Your task to perform on an android device: uninstall "Microsoft Excel" Image 0: 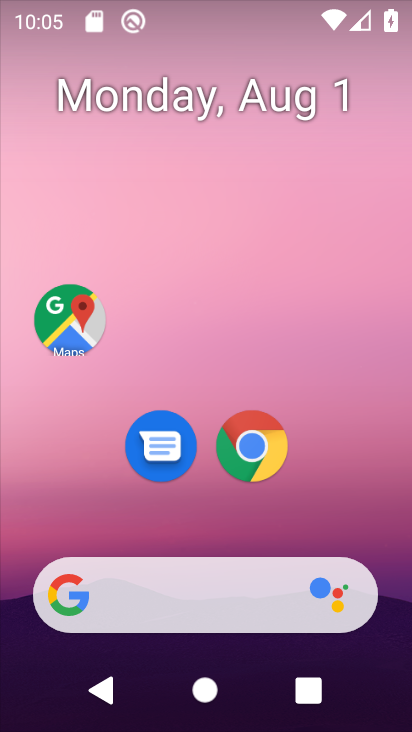
Step 0: drag from (207, 526) to (233, 102)
Your task to perform on an android device: uninstall "Microsoft Excel" Image 1: 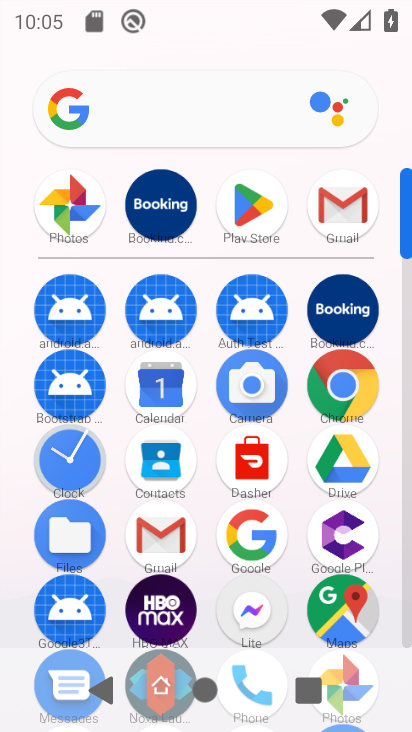
Step 1: click (245, 186)
Your task to perform on an android device: uninstall "Microsoft Excel" Image 2: 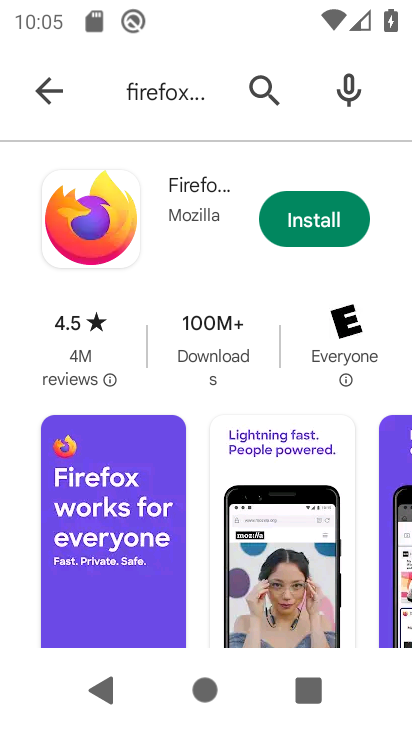
Step 2: click (266, 74)
Your task to perform on an android device: uninstall "Microsoft Excel" Image 3: 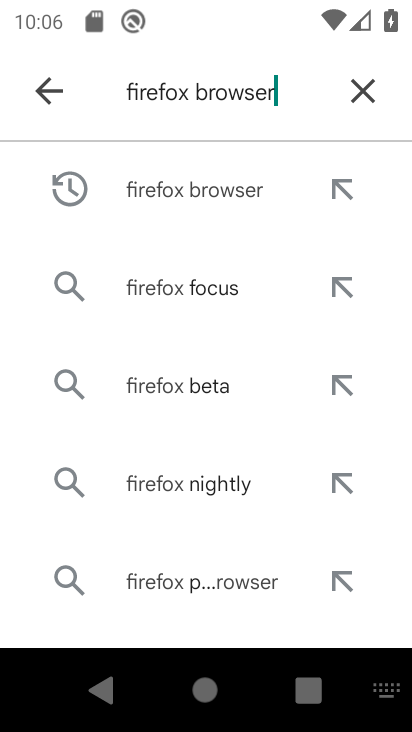
Step 3: click (354, 98)
Your task to perform on an android device: uninstall "Microsoft Excel" Image 4: 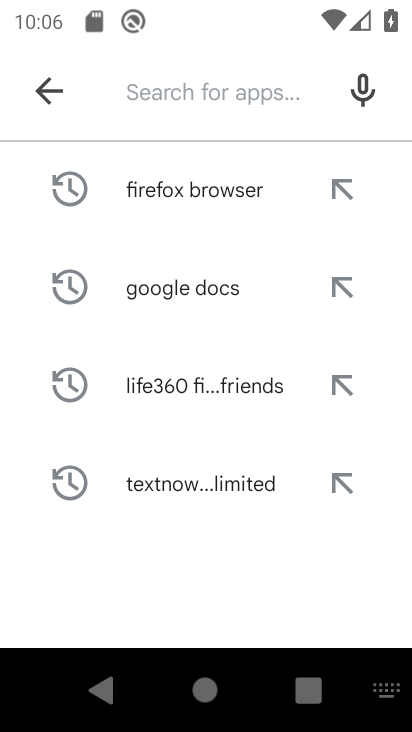
Step 4: type "Microsoft Excel"
Your task to perform on an android device: uninstall "Microsoft Excel" Image 5: 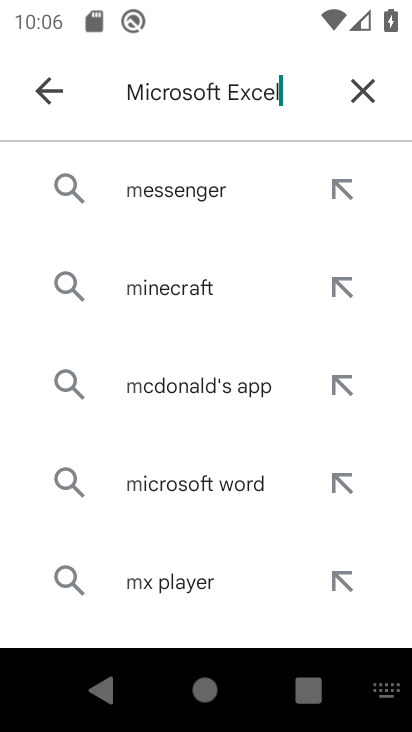
Step 5: type ""
Your task to perform on an android device: uninstall "Microsoft Excel" Image 6: 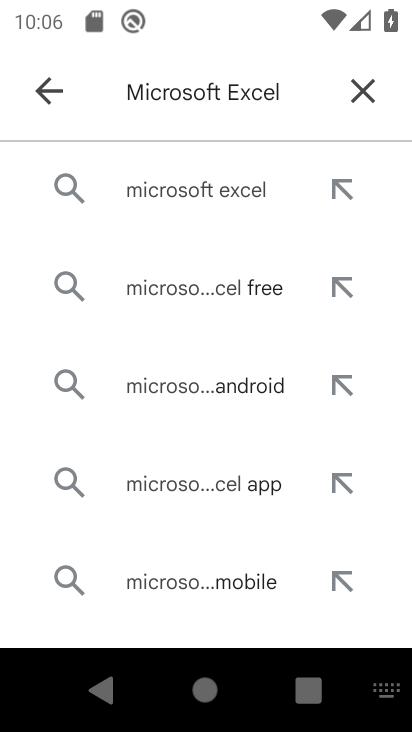
Step 6: click (154, 184)
Your task to perform on an android device: uninstall "Microsoft Excel" Image 7: 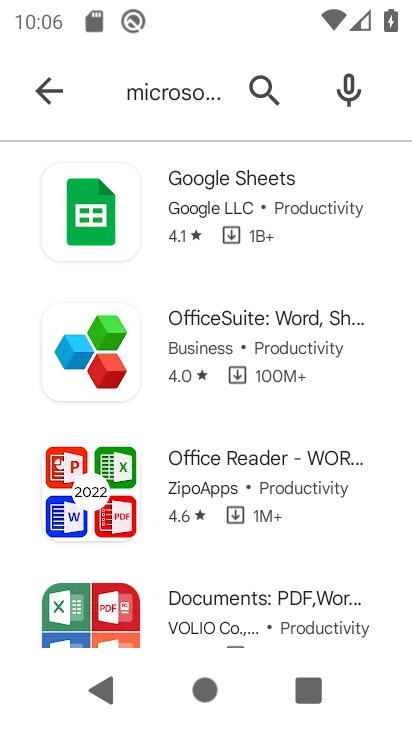
Step 7: task complete